Your task to perform on an android device: toggle wifi Image 0: 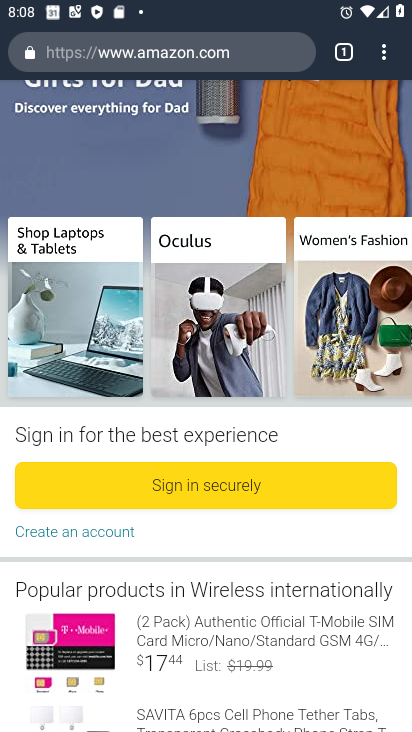
Step 0: press home button
Your task to perform on an android device: toggle wifi Image 1: 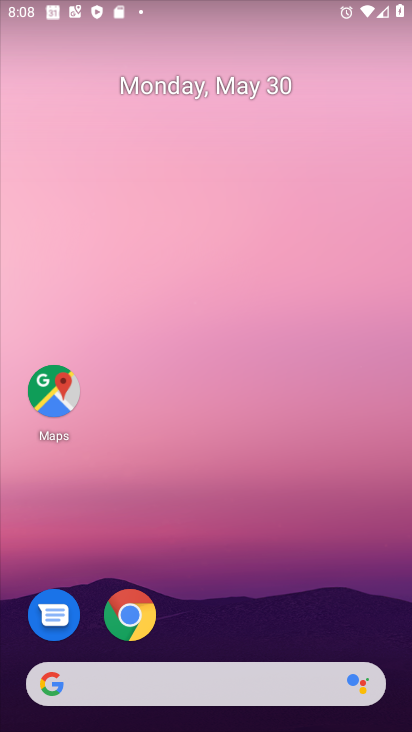
Step 1: drag from (365, 509) to (375, 48)
Your task to perform on an android device: toggle wifi Image 2: 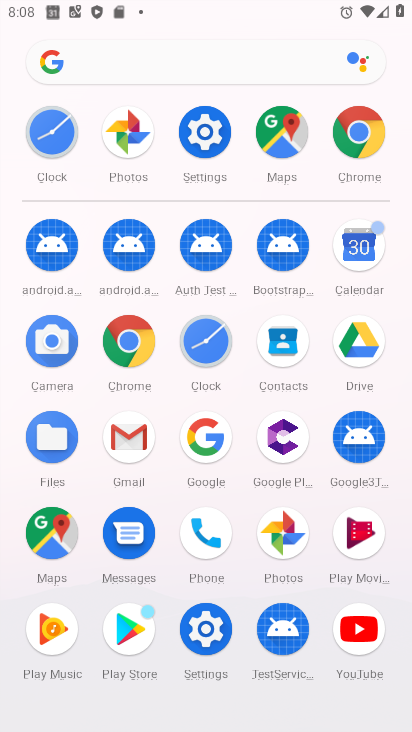
Step 2: click (187, 132)
Your task to perform on an android device: toggle wifi Image 3: 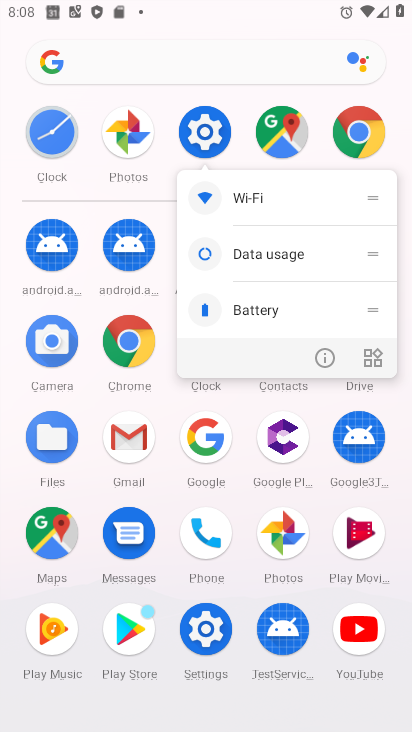
Step 3: click (205, 146)
Your task to perform on an android device: toggle wifi Image 4: 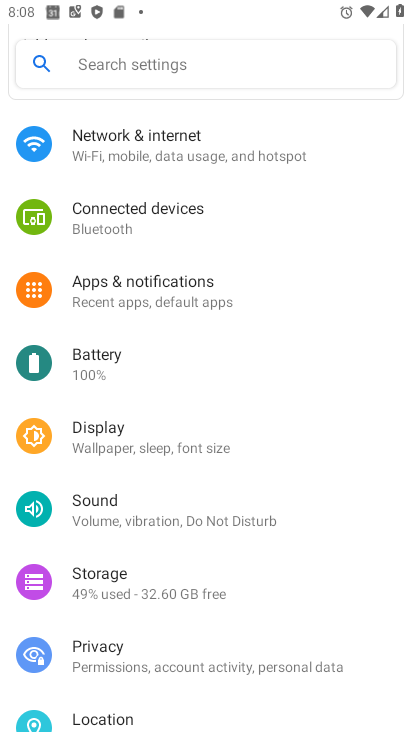
Step 4: drag from (205, 146) to (266, 628)
Your task to perform on an android device: toggle wifi Image 5: 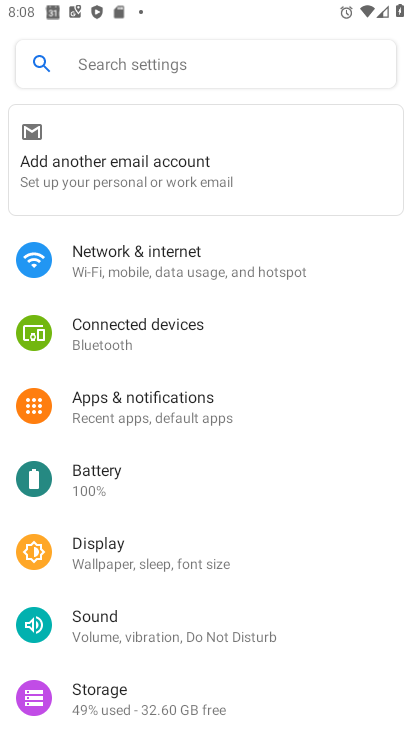
Step 5: click (136, 264)
Your task to perform on an android device: toggle wifi Image 6: 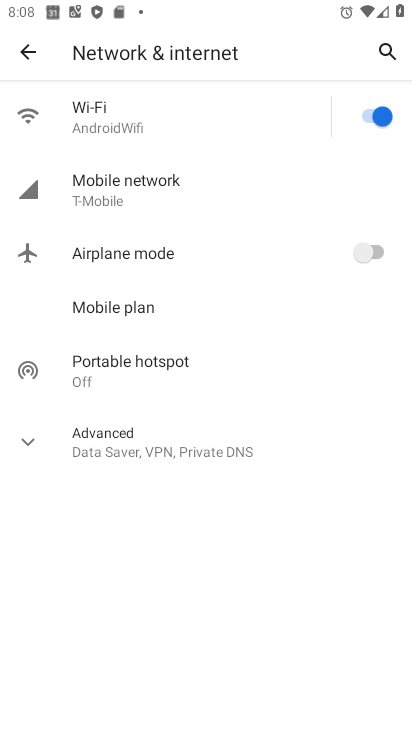
Step 6: click (150, 116)
Your task to perform on an android device: toggle wifi Image 7: 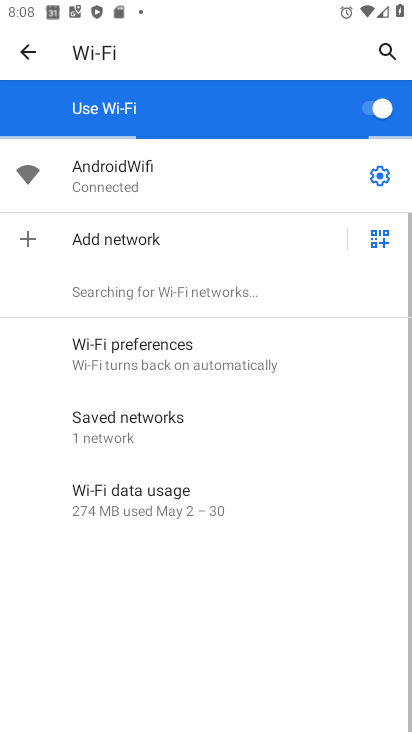
Step 7: click (371, 120)
Your task to perform on an android device: toggle wifi Image 8: 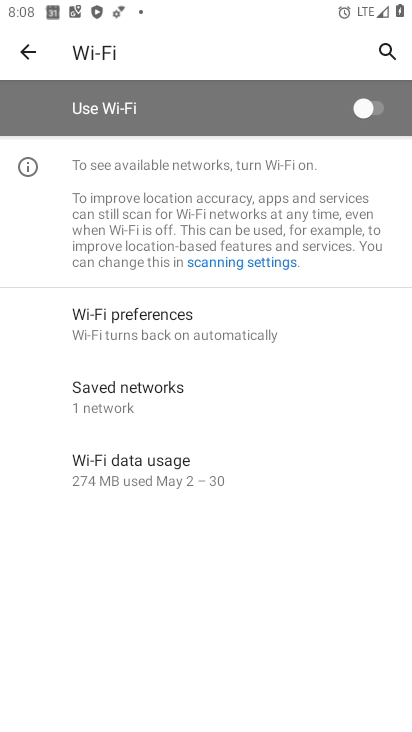
Step 8: task complete